Your task to perform on an android device: turn on bluetooth scan Image 0: 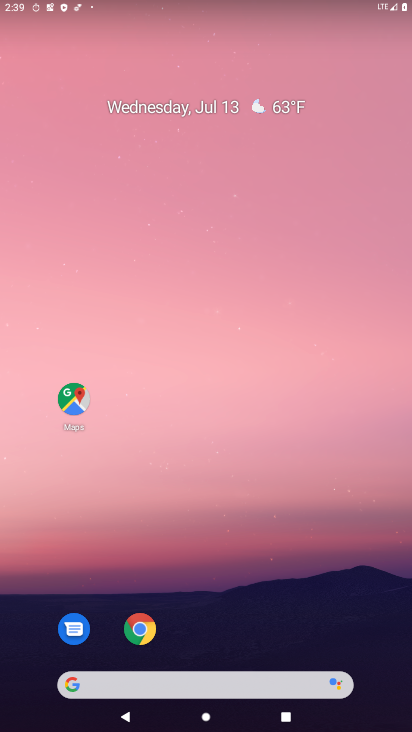
Step 0: click (216, 15)
Your task to perform on an android device: turn on bluetooth scan Image 1: 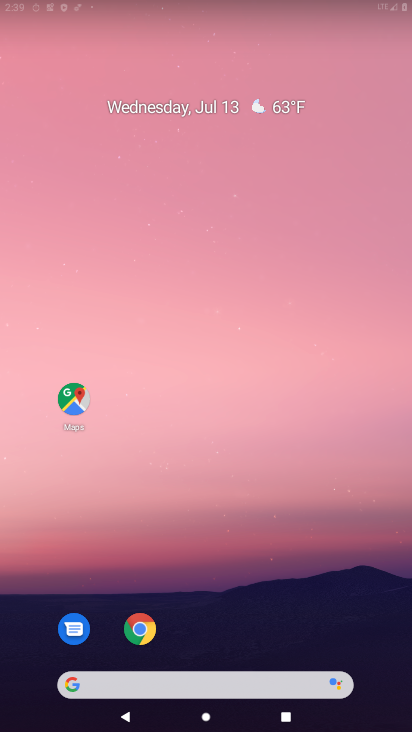
Step 1: drag from (200, 653) to (207, 1)
Your task to perform on an android device: turn on bluetooth scan Image 2: 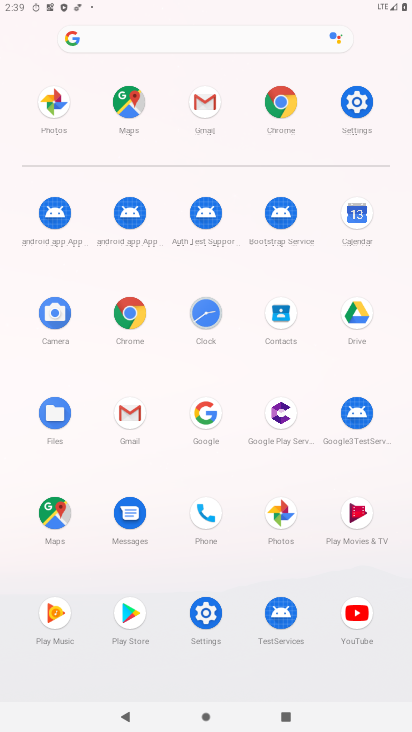
Step 2: click (357, 110)
Your task to perform on an android device: turn on bluetooth scan Image 3: 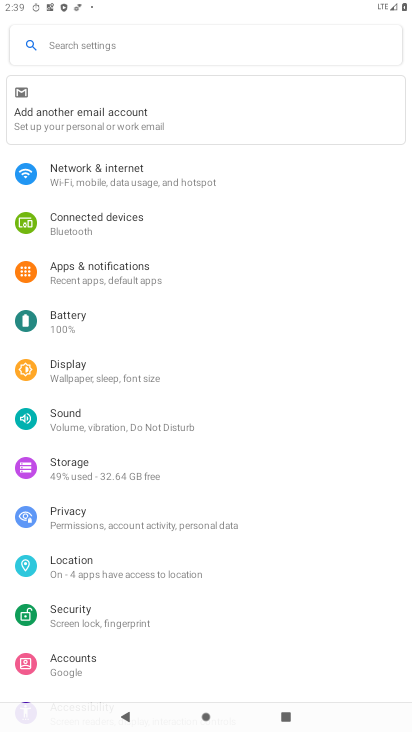
Step 3: click (82, 566)
Your task to perform on an android device: turn on bluetooth scan Image 4: 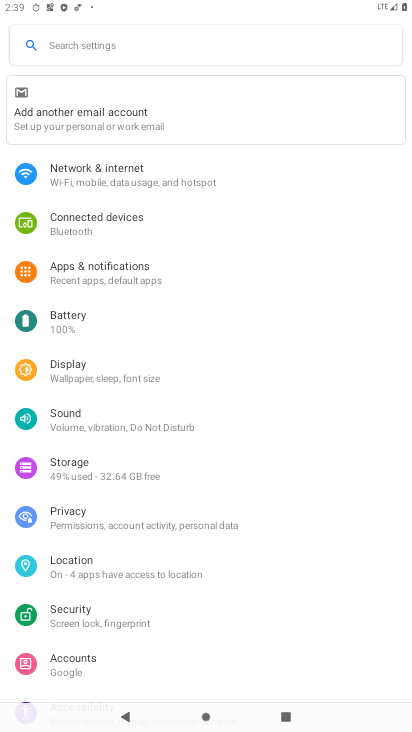
Step 4: click (82, 566)
Your task to perform on an android device: turn on bluetooth scan Image 5: 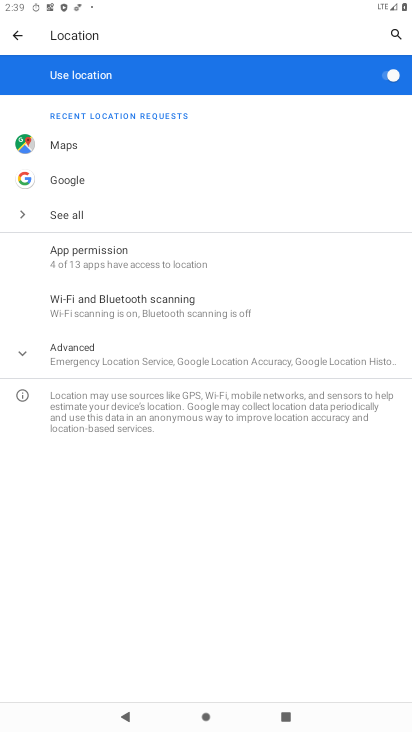
Step 5: click (136, 308)
Your task to perform on an android device: turn on bluetooth scan Image 6: 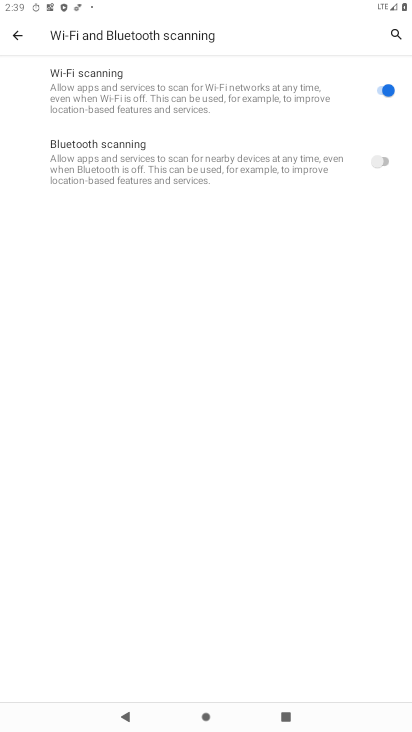
Step 6: click (308, 153)
Your task to perform on an android device: turn on bluetooth scan Image 7: 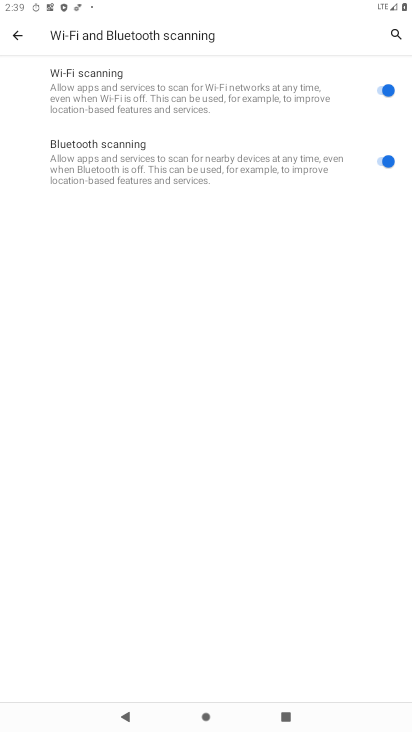
Step 7: task complete